Your task to perform on an android device: What's the weather? Image 0: 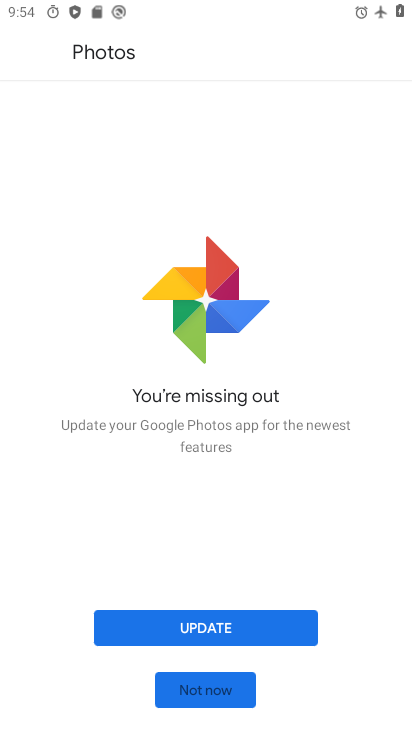
Step 0: press back button
Your task to perform on an android device: What's the weather? Image 1: 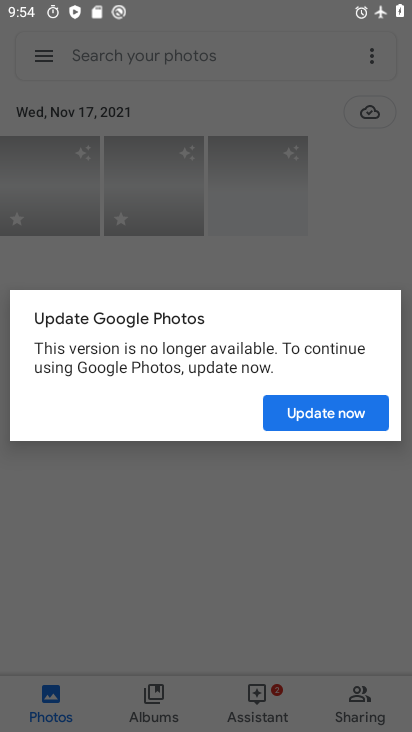
Step 1: press home button
Your task to perform on an android device: What's the weather? Image 2: 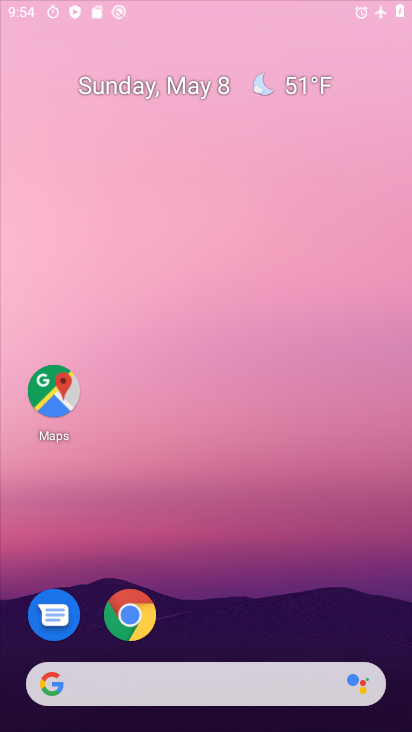
Step 2: press home button
Your task to perform on an android device: What's the weather? Image 3: 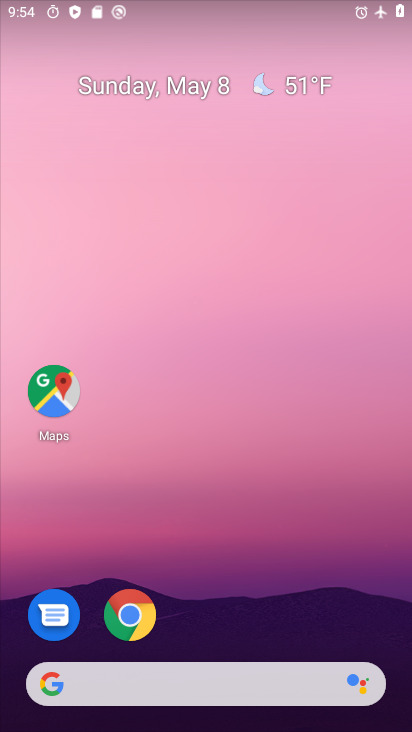
Step 3: drag from (184, 625) to (168, 167)
Your task to perform on an android device: What's the weather? Image 4: 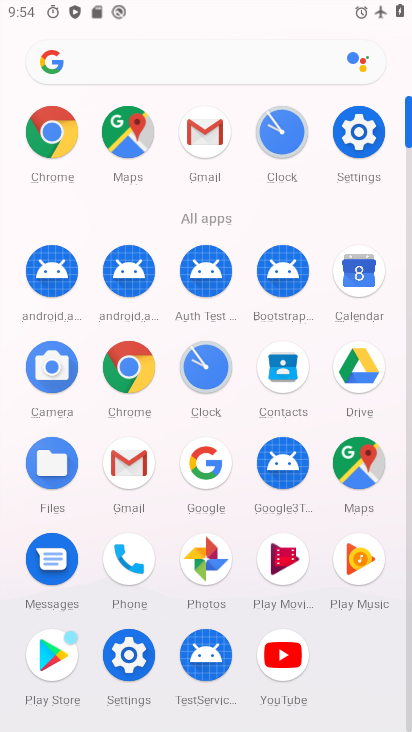
Step 4: click (188, 461)
Your task to perform on an android device: What's the weather? Image 5: 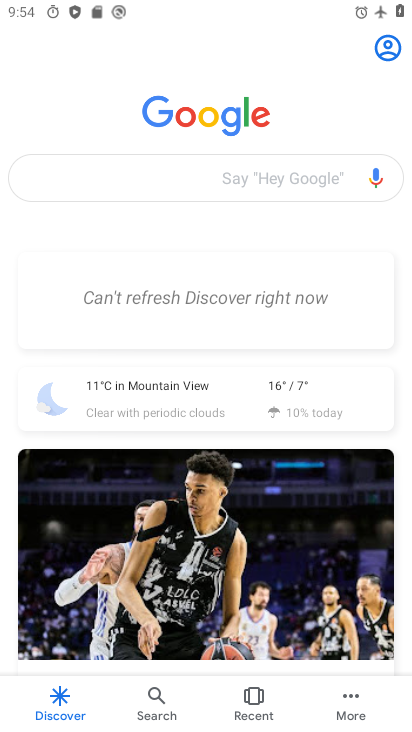
Step 5: click (157, 386)
Your task to perform on an android device: What's the weather? Image 6: 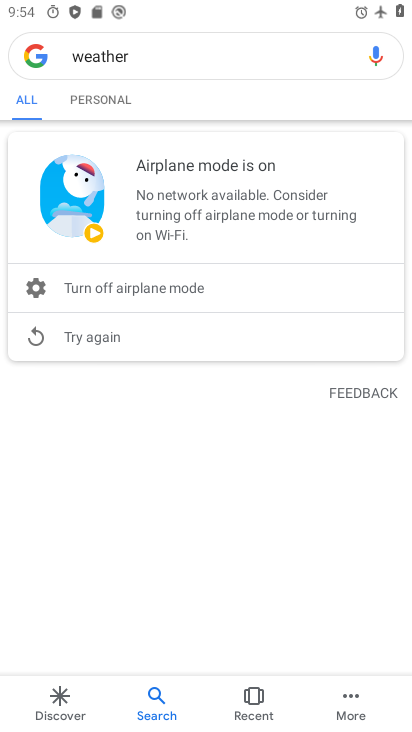
Step 6: task complete